Your task to perform on an android device: turn off priority inbox in the gmail app Image 0: 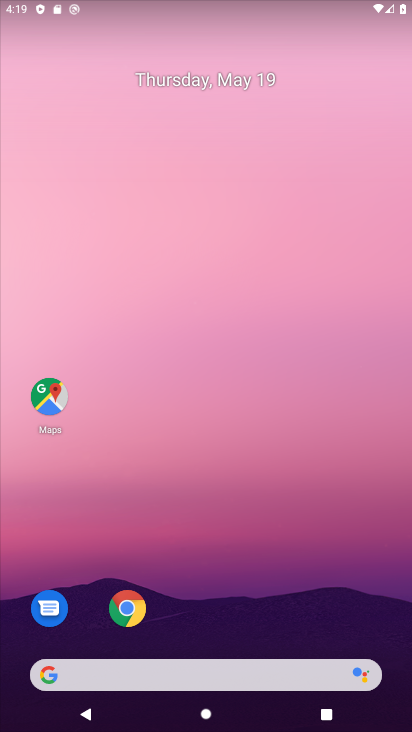
Step 0: drag from (341, 571) to (237, 76)
Your task to perform on an android device: turn off priority inbox in the gmail app Image 1: 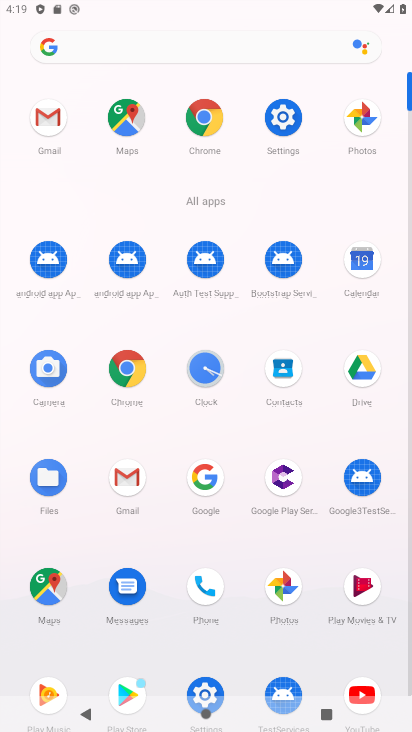
Step 1: click (52, 116)
Your task to perform on an android device: turn off priority inbox in the gmail app Image 2: 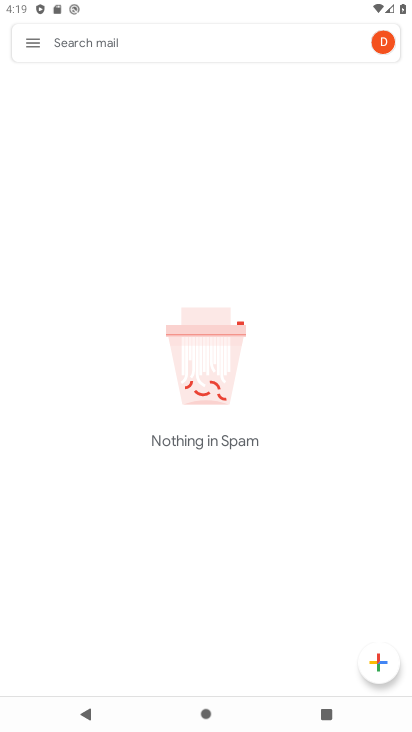
Step 2: click (35, 41)
Your task to perform on an android device: turn off priority inbox in the gmail app Image 3: 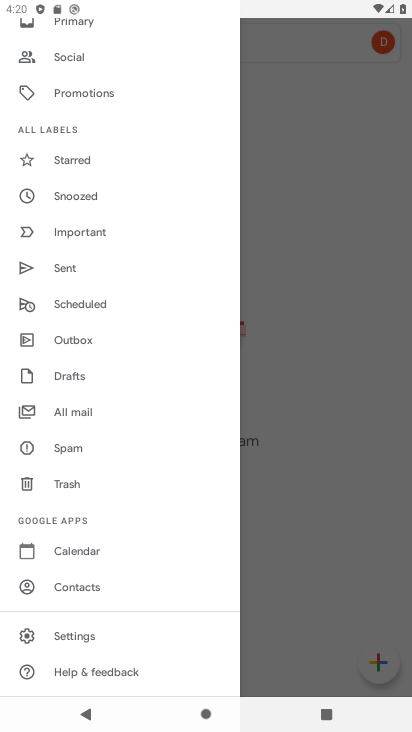
Step 3: click (87, 635)
Your task to perform on an android device: turn off priority inbox in the gmail app Image 4: 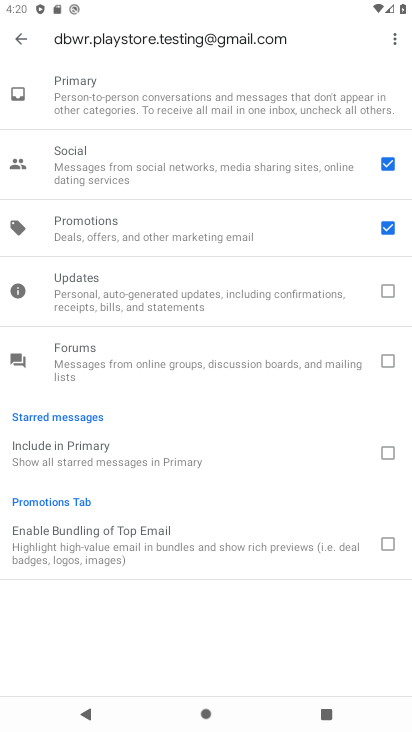
Step 4: drag from (121, 127) to (184, 642)
Your task to perform on an android device: turn off priority inbox in the gmail app Image 5: 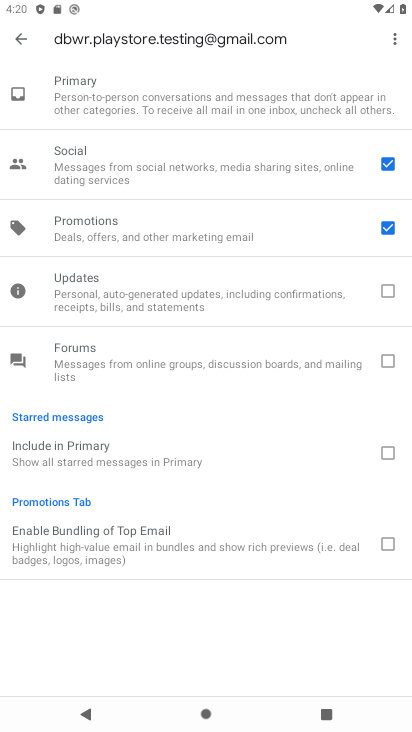
Step 5: click (20, 32)
Your task to perform on an android device: turn off priority inbox in the gmail app Image 6: 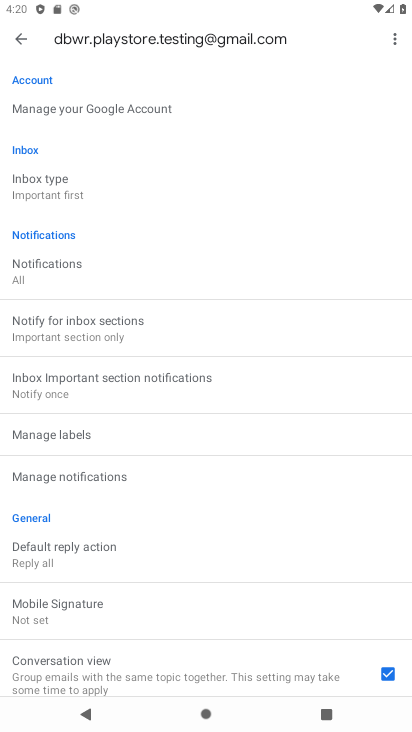
Step 6: drag from (60, 159) to (99, 452)
Your task to perform on an android device: turn off priority inbox in the gmail app Image 7: 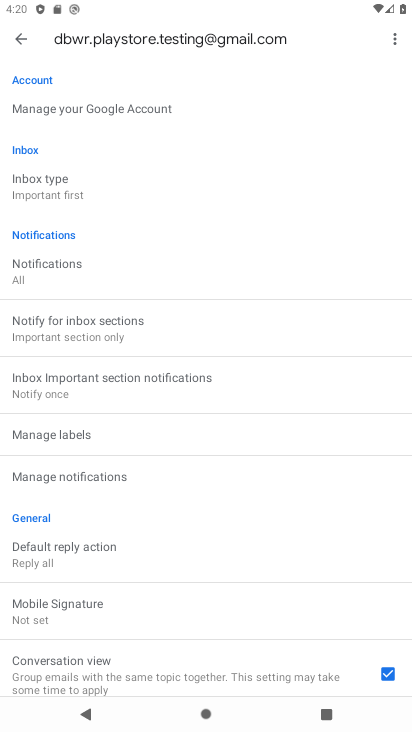
Step 7: click (27, 191)
Your task to perform on an android device: turn off priority inbox in the gmail app Image 8: 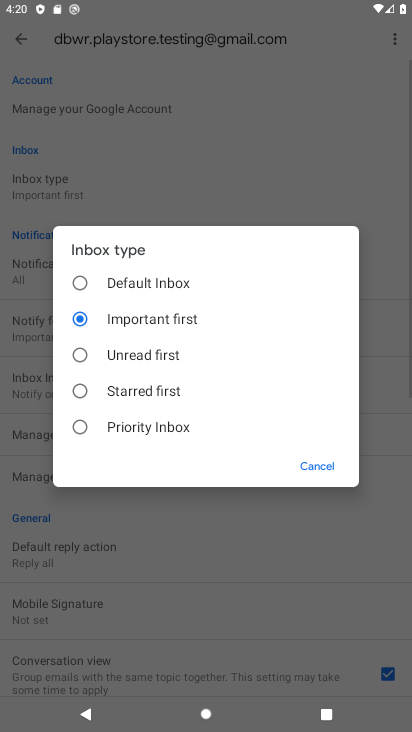
Step 8: task complete